Your task to perform on an android device: Open Wikipedia Image 0: 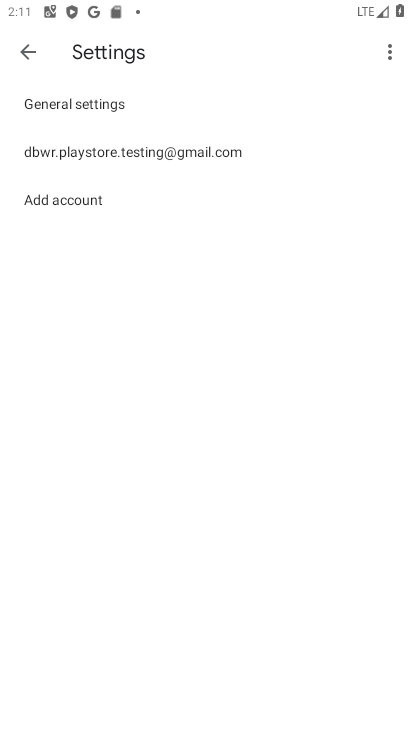
Step 0: press home button
Your task to perform on an android device: Open Wikipedia Image 1: 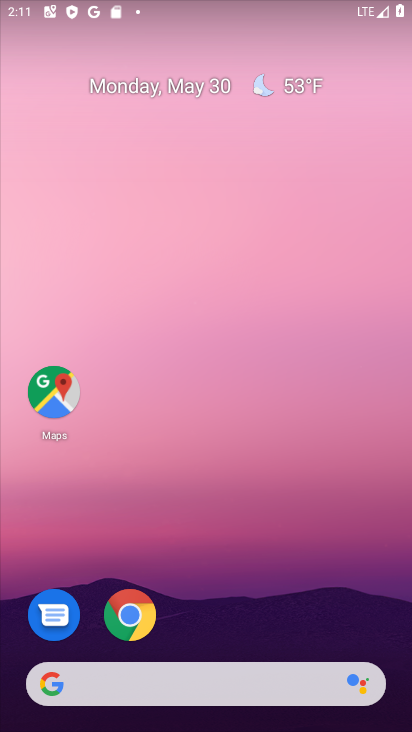
Step 1: click (127, 607)
Your task to perform on an android device: Open Wikipedia Image 2: 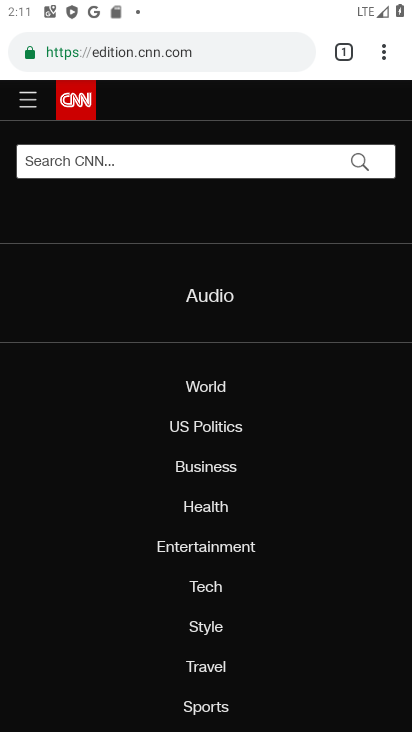
Step 2: click (336, 40)
Your task to perform on an android device: Open Wikipedia Image 3: 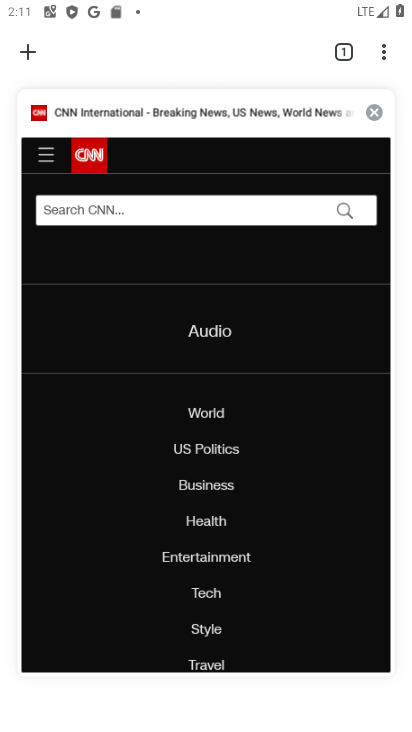
Step 3: click (374, 113)
Your task to perform on an android device: Open Wikipedia Image 4: 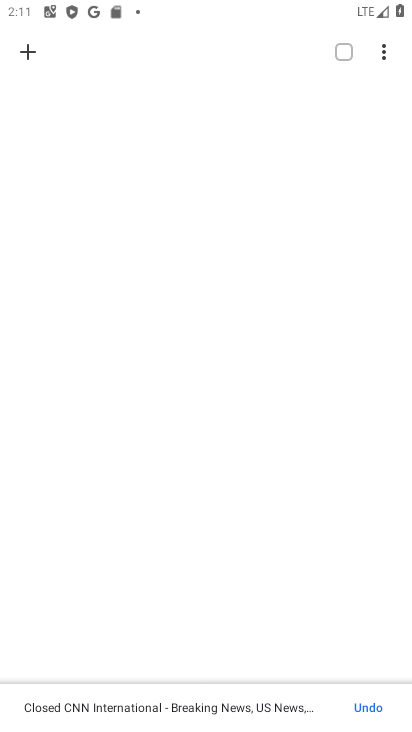
Step 4: click (31, 50)
Your task to perform on an android device: Open Wikipedia Image 5: 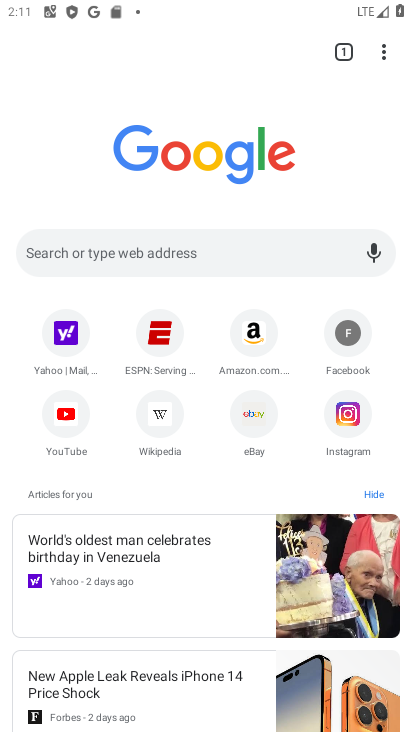
Step 5: click (162, 415)
Your task to perform on an android device: Open Wikipedia Image 6: 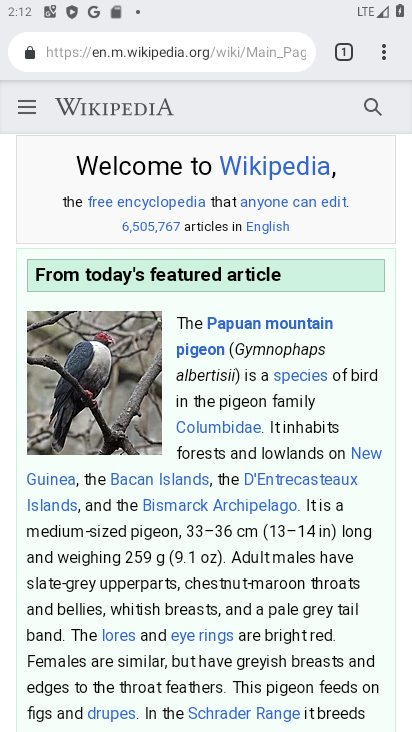
Step 6: task complete